Your task to perform on an android device: toggle javascript in the chrome app Image 0: 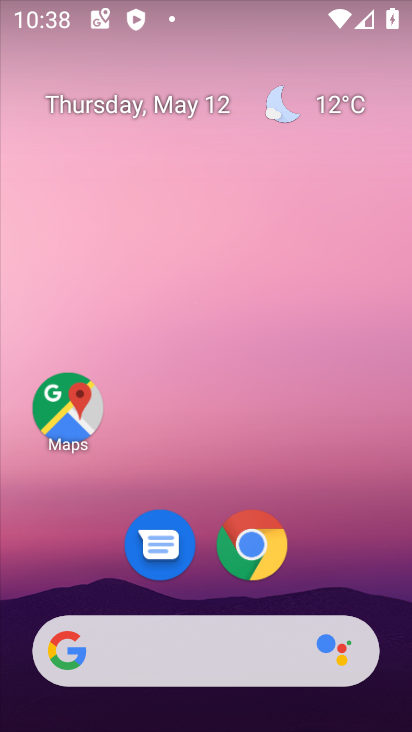
Step 0: click (263, 545)
Your task to perform on an android device: toggle javascript in the chrome app Image 1: 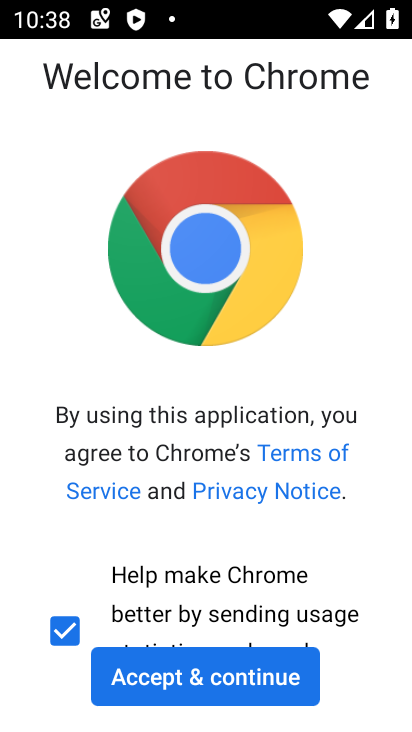
Step 1: click (207, 664)
Your task to perform on an android device: toggle javascript in the chrome app Image 2: 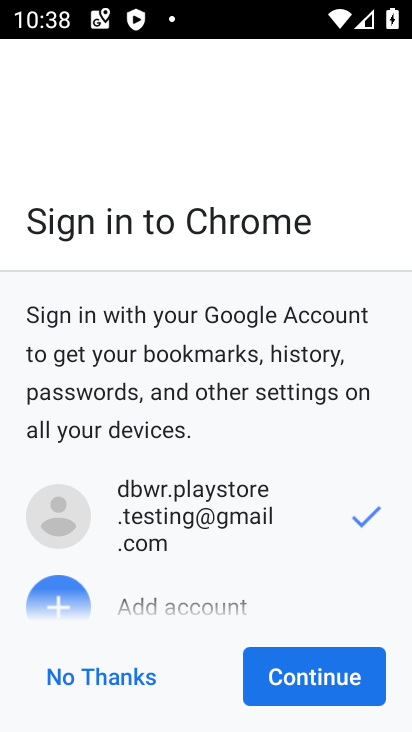
Step 2: click (314, 673)
Your task to perform on an android device: toggle javascript in the chrome app Image 3: 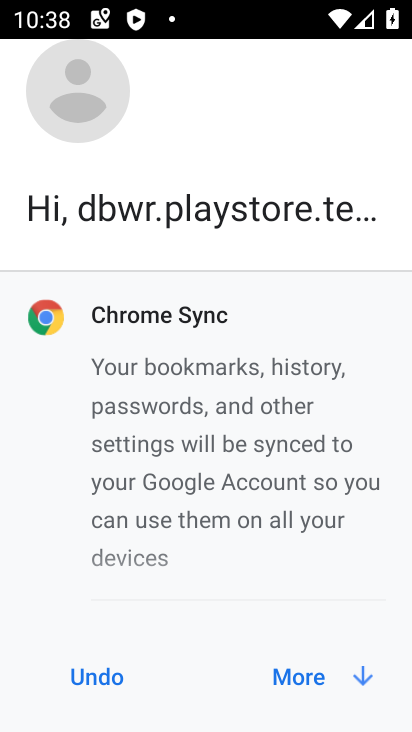
Step 3: click (299, 680)
Your task to perform on an android device: toggle javascript in the chrome app Image 4: 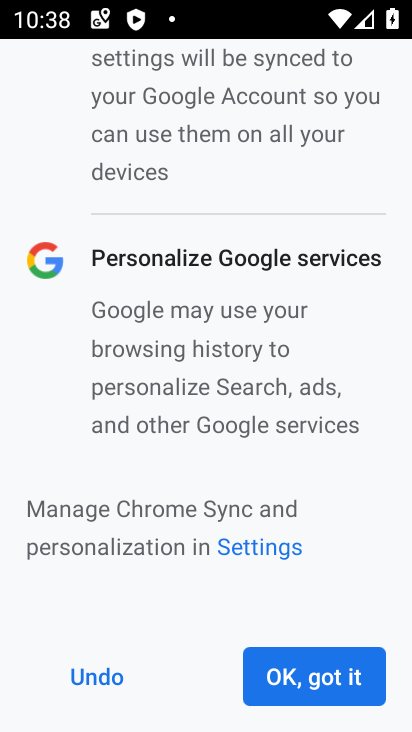
Step 4: click (299, 680)
Your task to perform on an android device: toggle javascript in the chrome app Image 5: 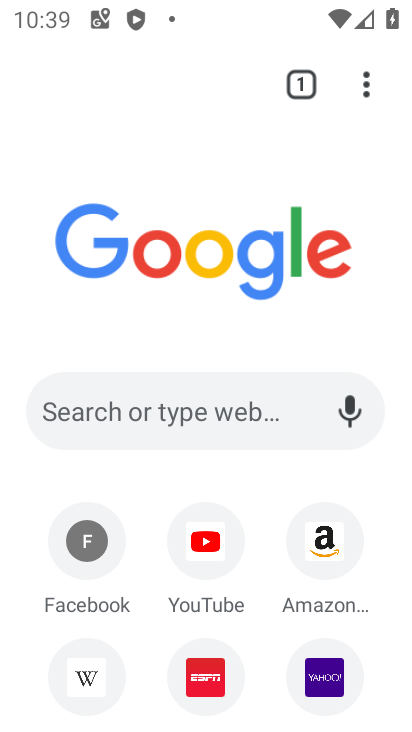
Step 5: click (360, 88)
Your task to perform on an android device: toggle javascript in the chrome app Image 6: 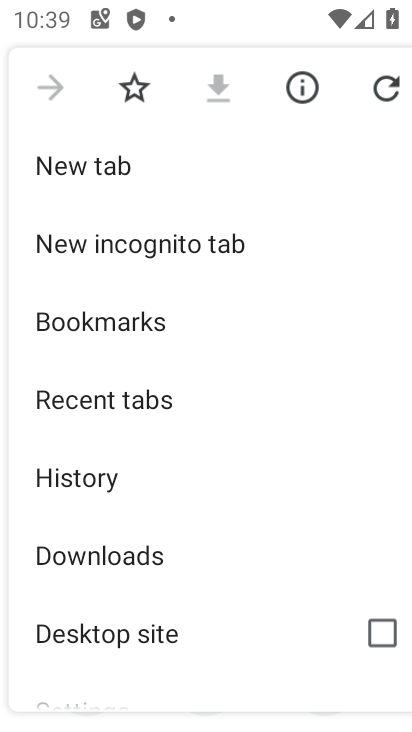
Step 6: drag from (182, 631) to (171, 122)
Your task to perform on an android device: toggle javascript in the chrome app Image 7: 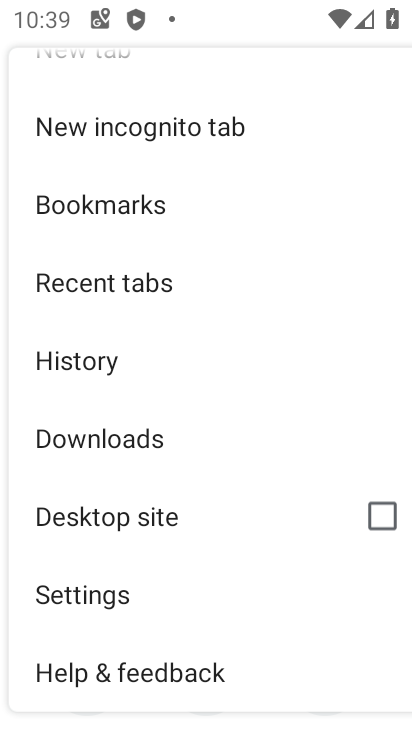
Step 7: click (143, 592)
Your task to perform on an android device: toggle javascript in the chrome app Image 8: 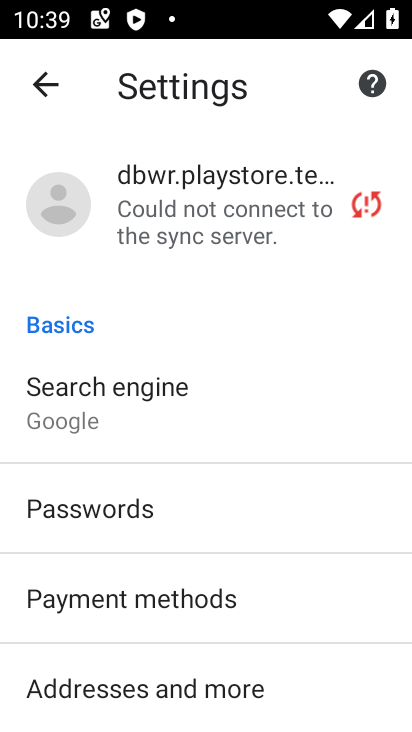
Step 8: drag from (232, 656) to (217, 188)
Your task to perform on an android device: toggle javascript in the chrome app Image 9: 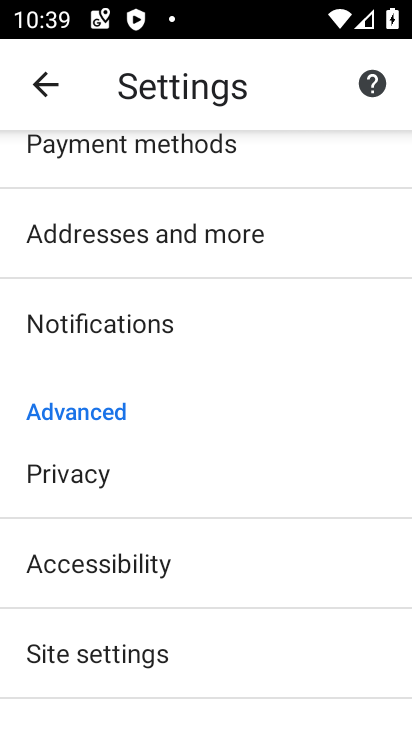
Step 9: click (189, 660)
Your task to perform on an android device: toggle javascript in the chrome app Image 10: 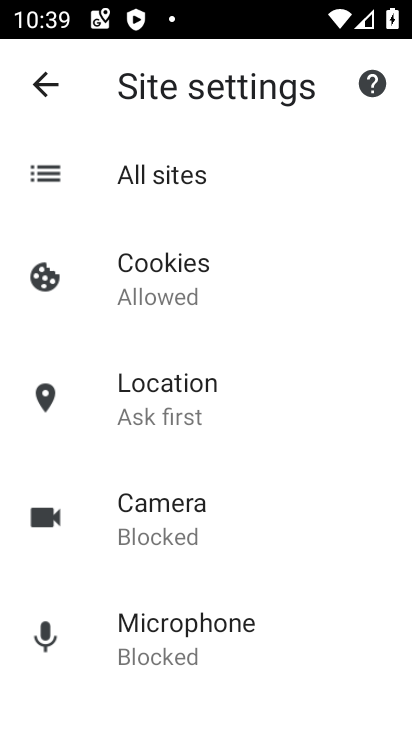
Step 10: drag from (225, 638) to (222, 215)
Your task to perform on an android device: toggle javascript in the chrome app Image 11: 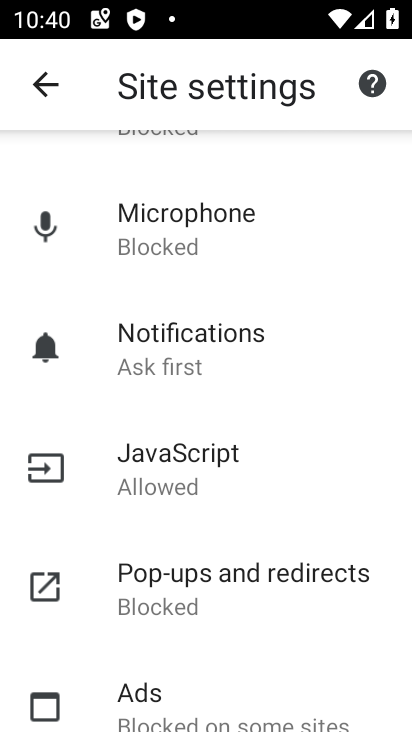
Step 11: click (195, 475)
Your task to perform on an android device: toggle javascript in the chrome app Image 12: 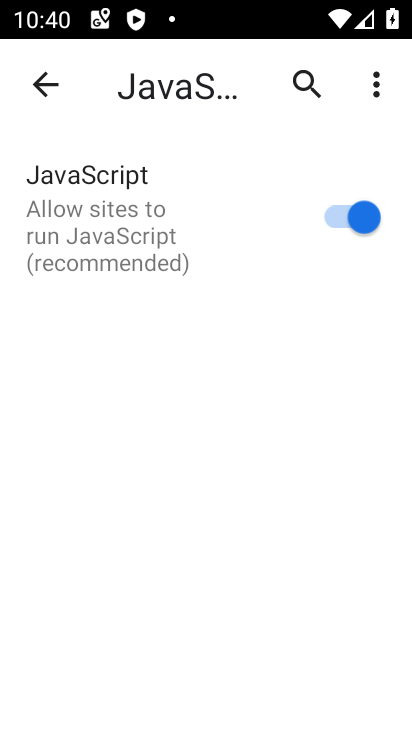
Step 12: click (348, 217)
Your task to perform on an android device: toggle javascript in the chrome app Image 13: 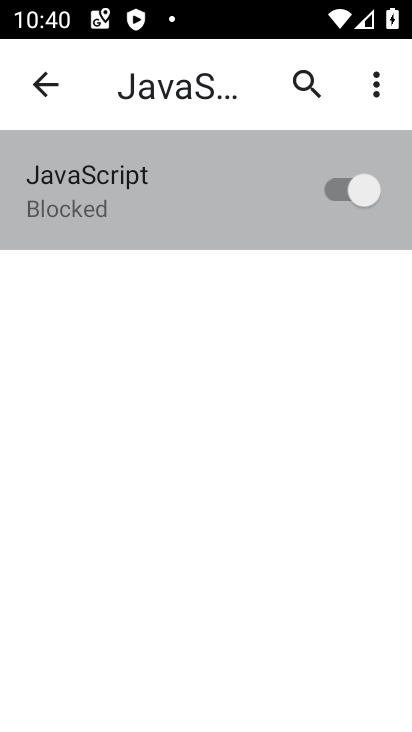
Step 13: task complete